Your task to perform on an android device: change the clock display to analog Image 0: 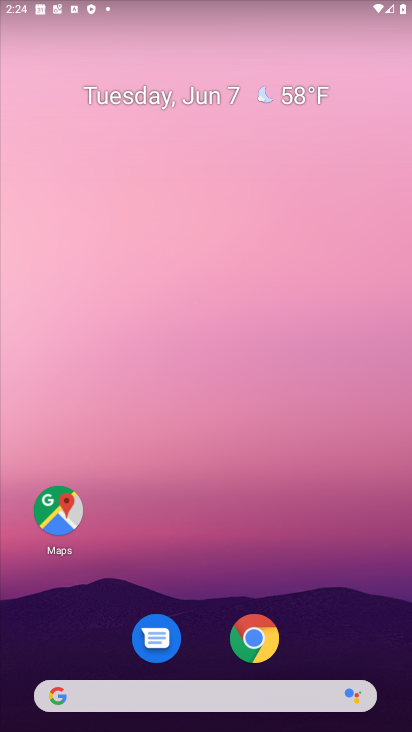
Step 0: drag from (205, 639) to (269, 267)
Your task to perform on an android device: change the clock display to analog Image 1: 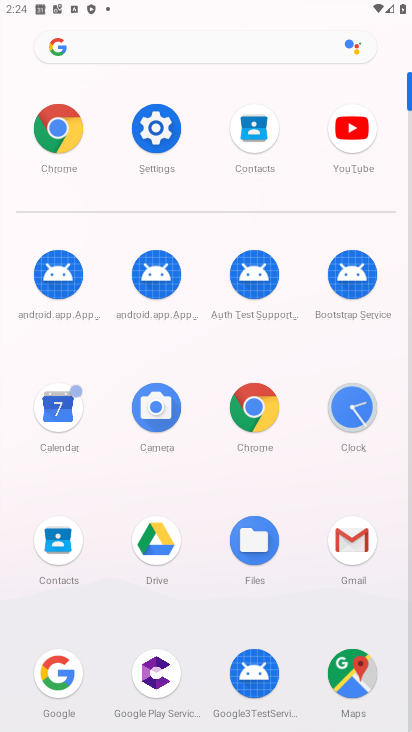
Step 1: click (359, 412)
Your task to perform on an android device: change the clock display to analog Image 2: 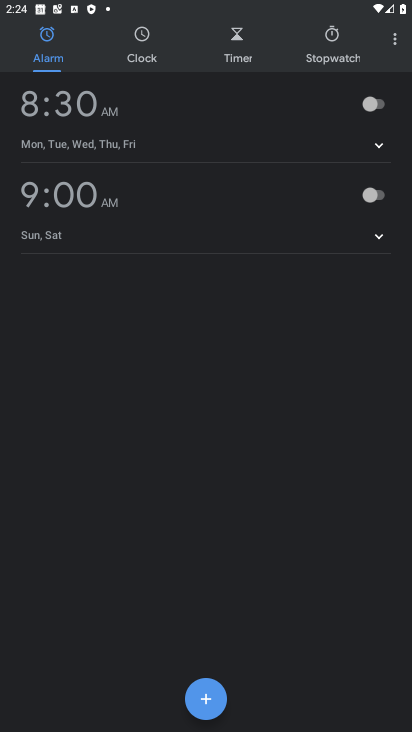
Step 2: click (396, 39)
Your task to perform on an android device: change the clock display to analog Image 3: 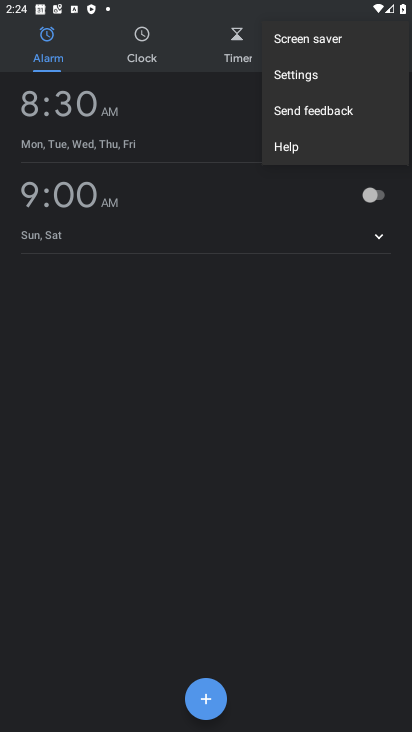
Step 3: click (315, 87)
Your task to perform on an android device: change the clock display to analog Image 4: 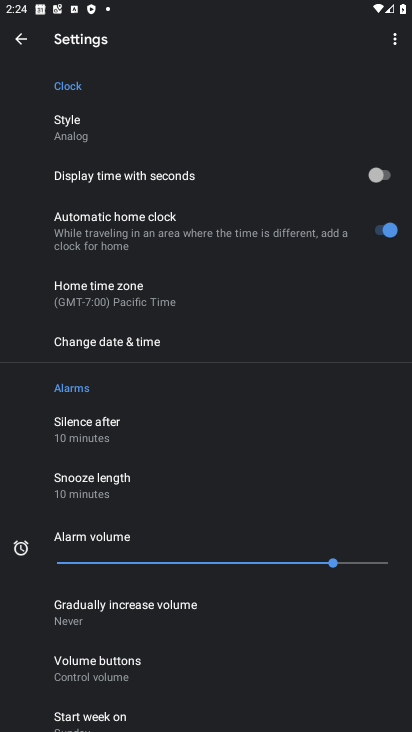
Step 4: task complete